Your task to perform on an android device: Go to Maps Image 0: 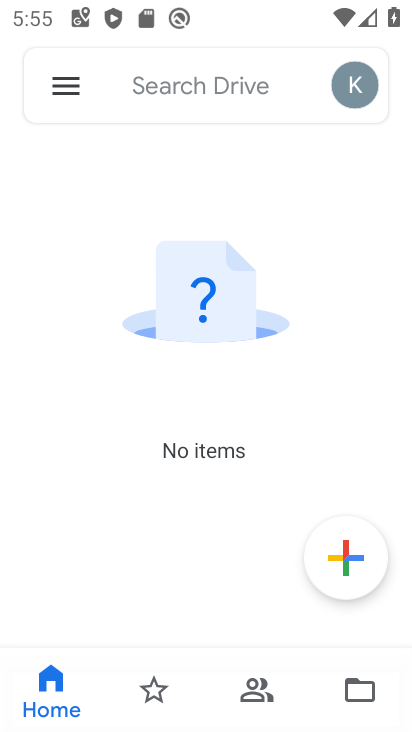
Step 0: press back button
Your task to perform on an android device: Go to Maps Image 1: 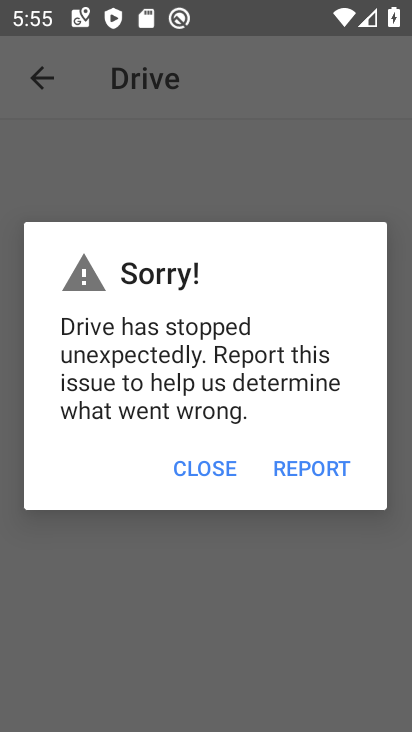
Step 1: press home button
Your task to perform on an android device: Go to Maps Image 2: 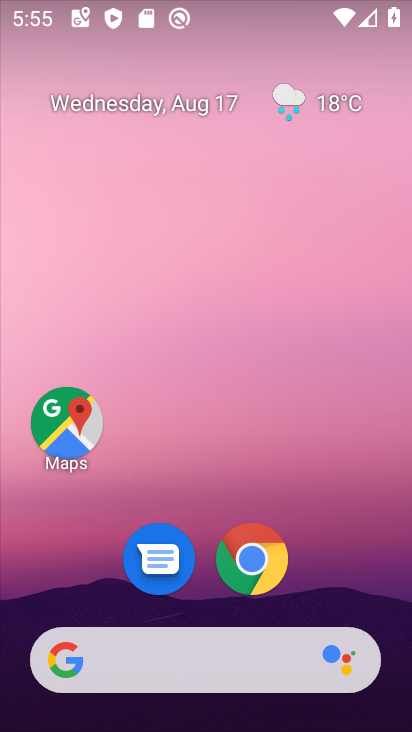
Step 2: click (60, 443)
Your task to perform on an android device: Go to Maps Image 3: 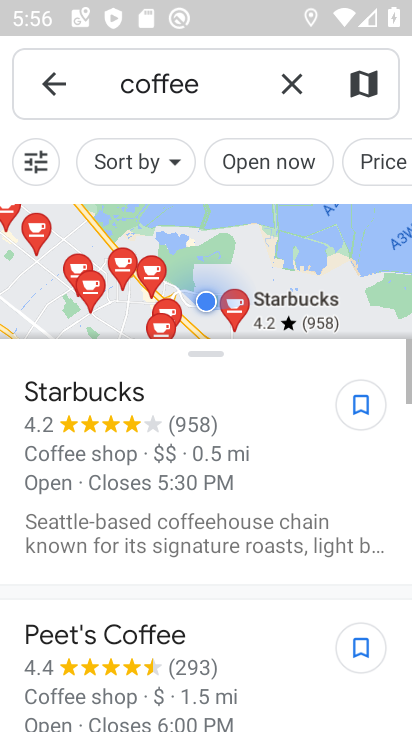
Step 3: task complete